Your task to perform on an android device: Open Google Chrome and open the bookmarks view Image 0: 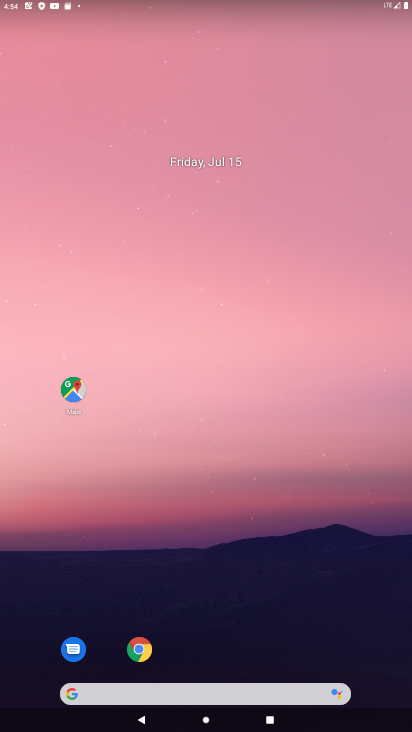
Step 0: drag from (329, 518) to (290, 28)
Your task to perform on an android device: Open Google Chrome and open the bookmarks view Image 1: 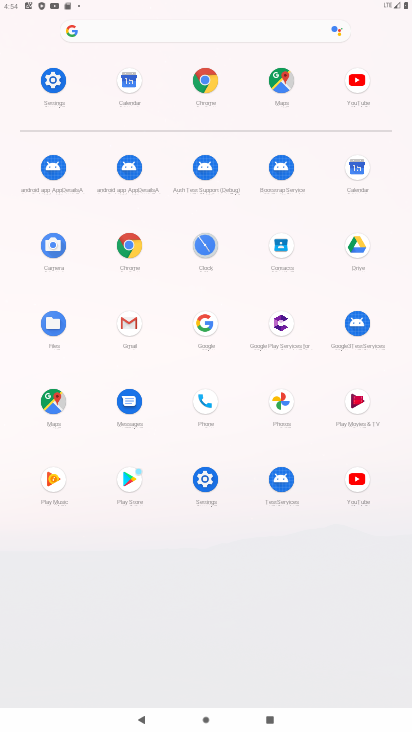
Step 1: click (125, 243)
Your task to perform on an android device: Open Google Chrome and open the bookmarks view Image 2: 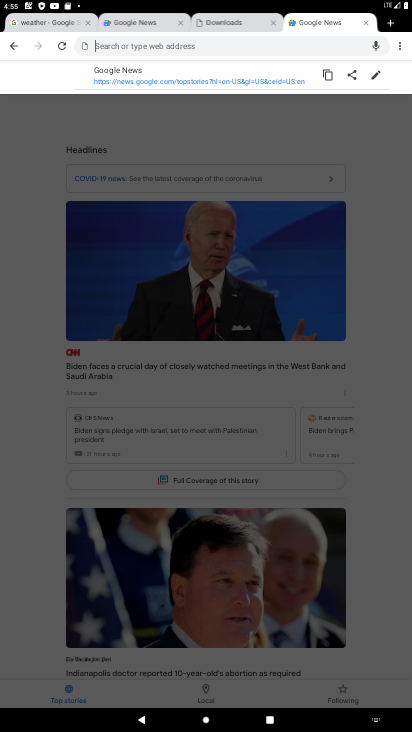
Step 2: task complete